Your task to perform on an android device: Search for Mexican restaurants on Maps Image 0: 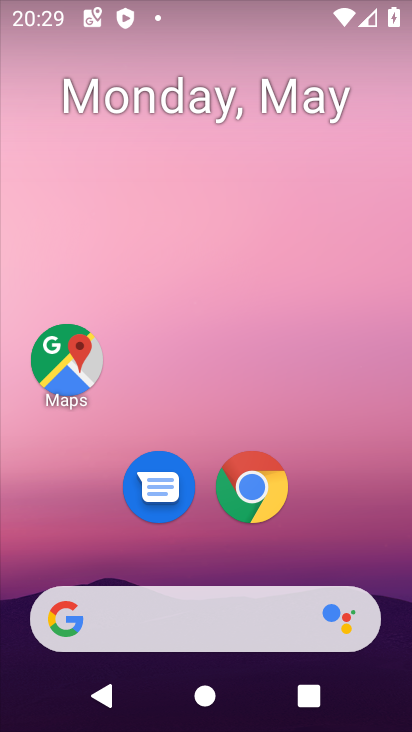
Step 0: drag from (390, 544) to (402, 299)
Your task to perform on an android device: Search for Mexican restaurants on Maps Image 1: 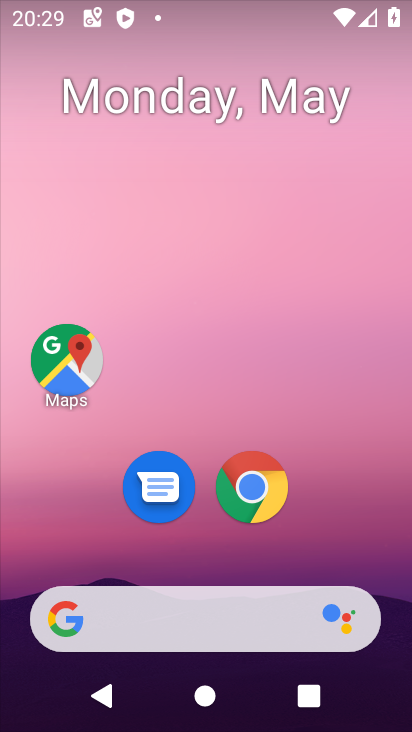
Step 1: drag from (368, 532) to (354, 163)
Your task to perform on an android device: Search for Mexican restaurants on Maps Image 2: 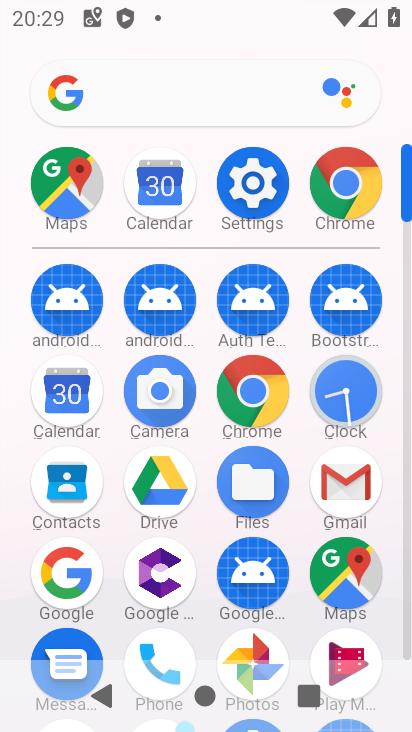
Step 2: click (362, 576)
Your task to perform on an android device: Search for Mexican restaurants on Maps Image 3: 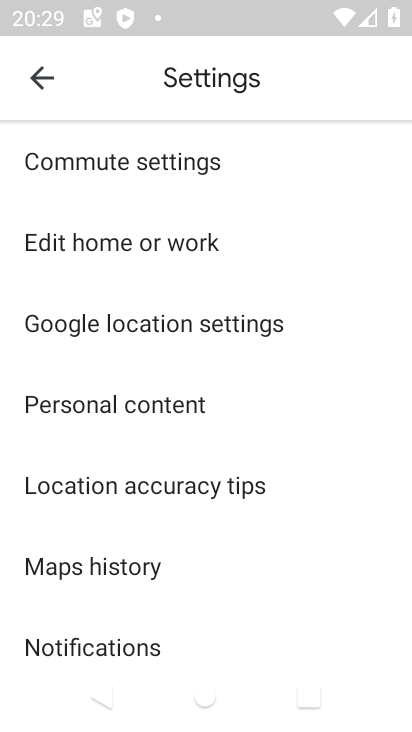
Step 3: click (40, 74)
Your task to perform on an android device: Search for Mexican restaurants on Maps Image 4: 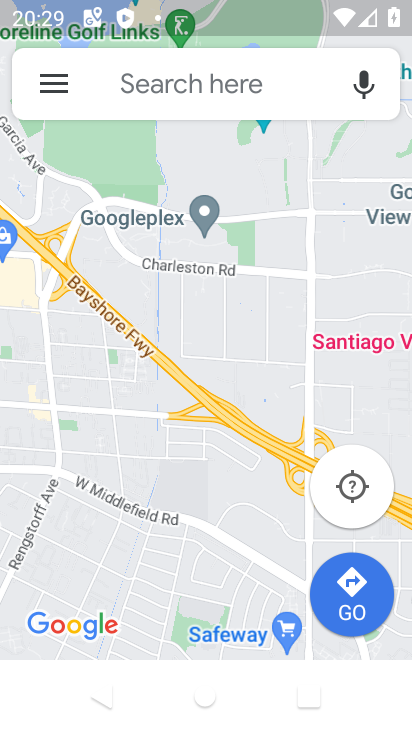
Step 4: click (166, 99)
Your task to perform on an android device: Search for Mexican restaurants on Maps Image 5: 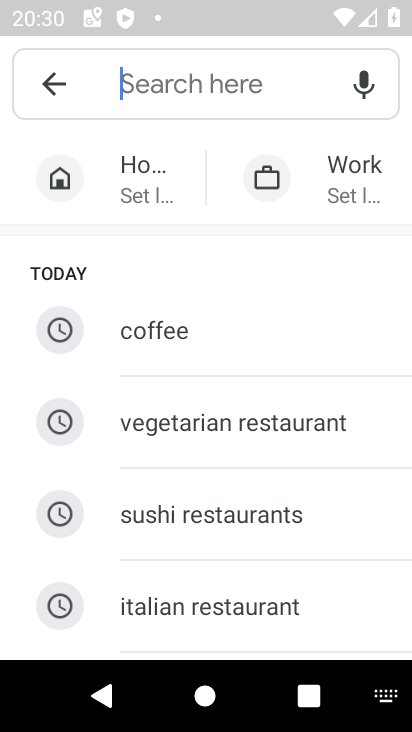
Step 5: type "mexcian restaurants"
Your task to perform on an android device: Search for Mexican restaurants on Maps Image 6: 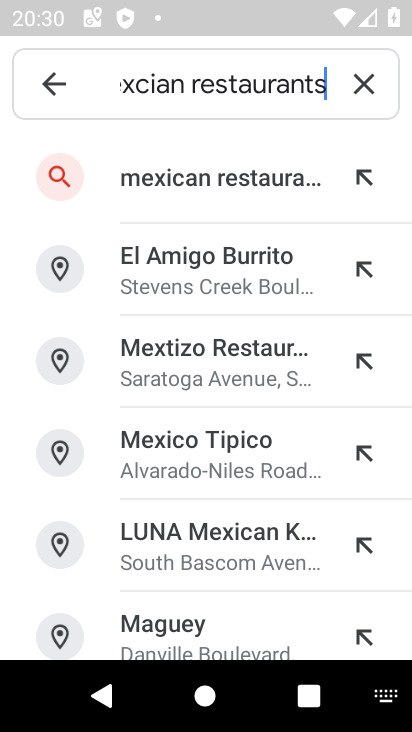
Step 6: click (287, 203)
Your task to perform on an android device: Search for Mexican restaurants on Maps Image 7: 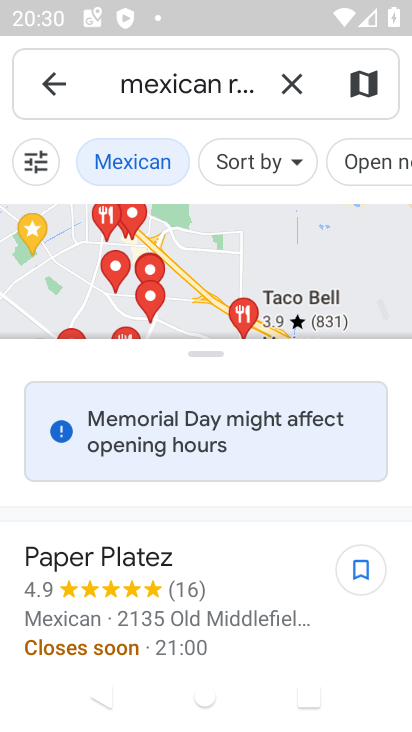
Step 7: task complete